Your task to perform on an android device: add a contact in the contacts app Image 0: 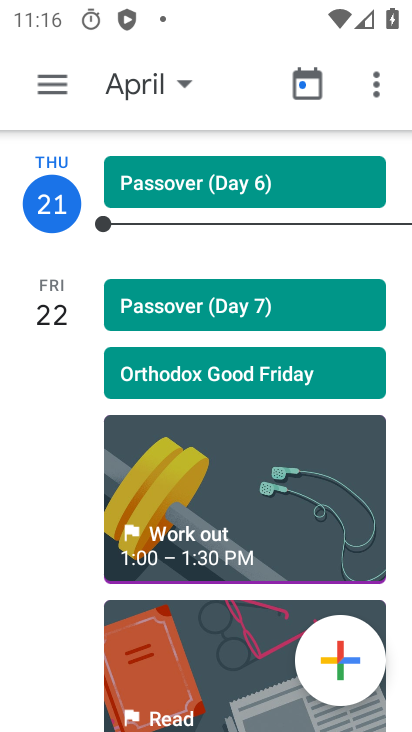
Step 0: press home button
Your task to perform on an android device: add a contact in the contacts app Image 1: 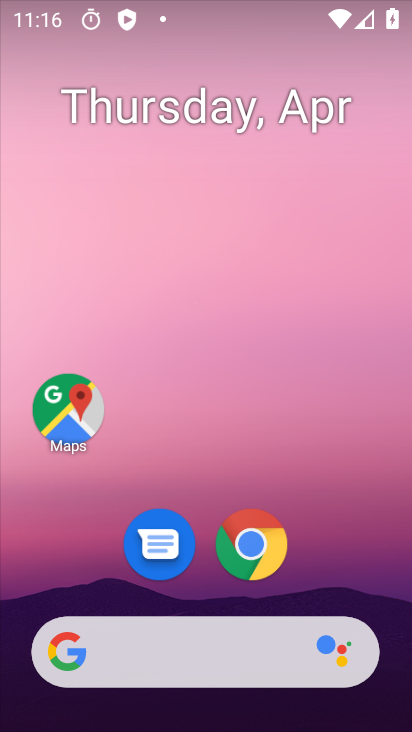
Step 1: drag from (129, 446) to (317, 115)
Your task to perform on an android device: add a contact in the contacts app Image 2: 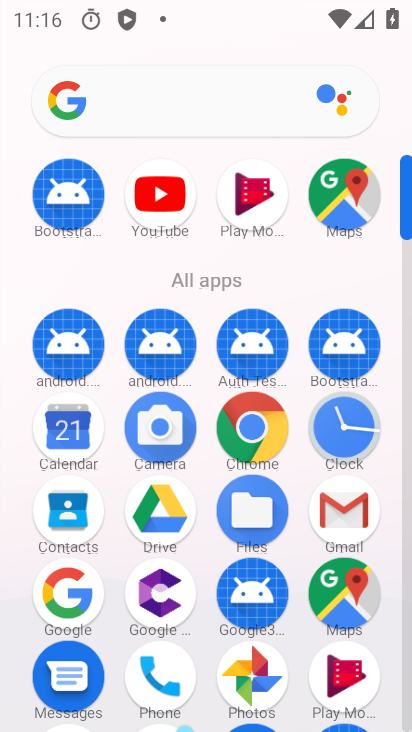
Step 2: click (159, 653)
Your task to perform on an android device: add a contact in the contacts app Image 3: 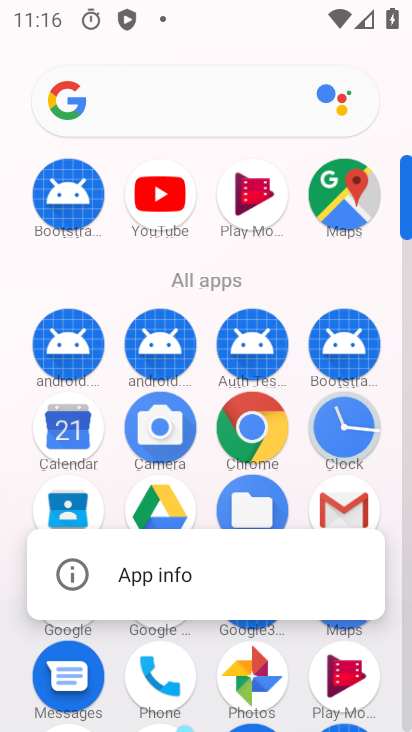
Step 3: click (139, 665)
Your task to perform on an android device: add a contact in the contacts app Image 4: 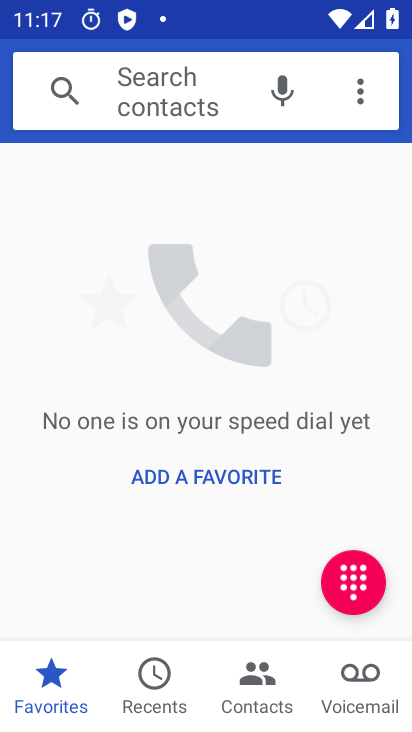
Step 4: click (253, 690)
Your task to perform on an android device: add a contact in the contacts app Image 5: 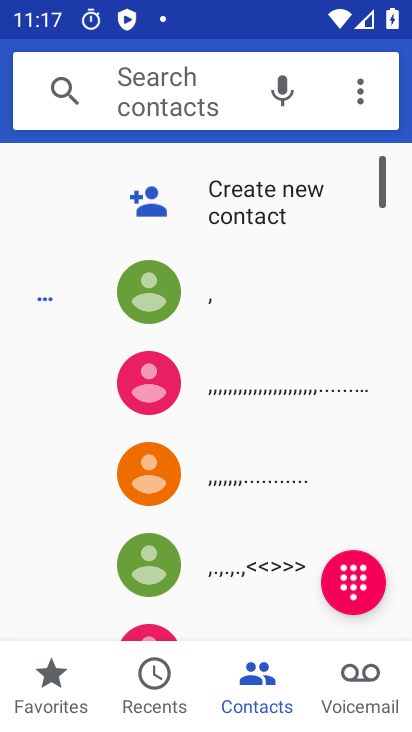
Step 5: click (236, 210)
Your task to perform on an android device: add a contact in the contacts app Image 6: 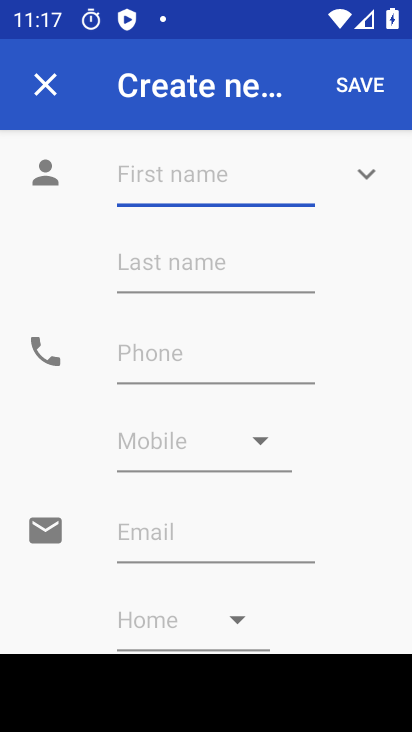
Step 6: click (219, 174)
Your task to perform on an android device: add a contact in the contacts app Image 7: 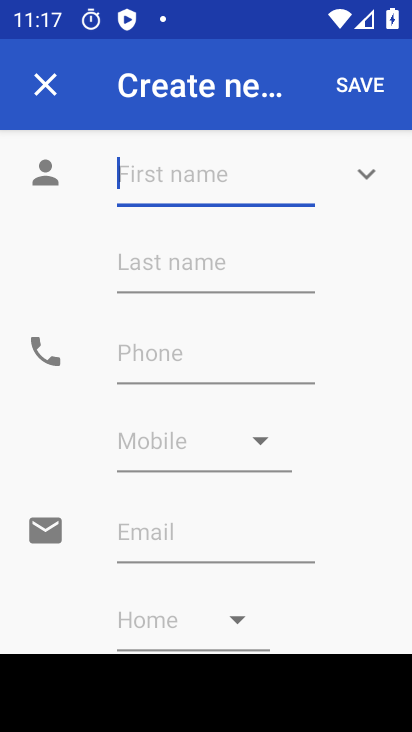
Step 7: type "gjghgh"
Your task to perform on an android device: add a contact in the contacts app Image 8: 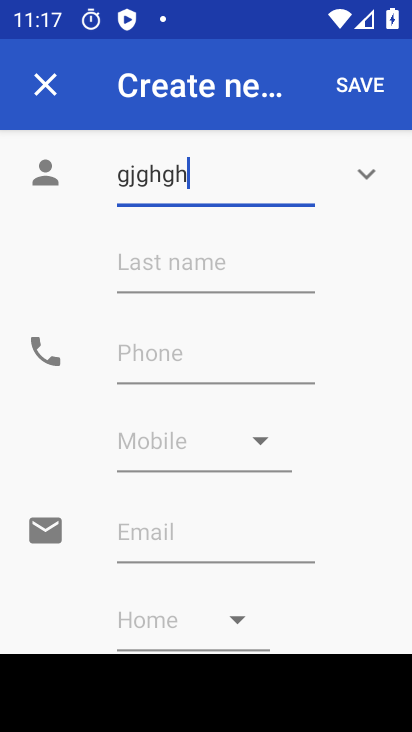
Step 8: type ""
Your task to perform on an android device: add a contact in the contacts app Image 9: 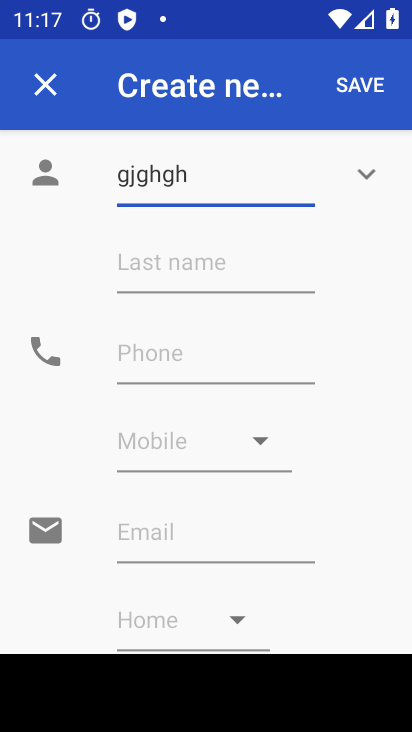
Step 9: task complete